Your task to perform on an android device: Go to Amazon Image 0: 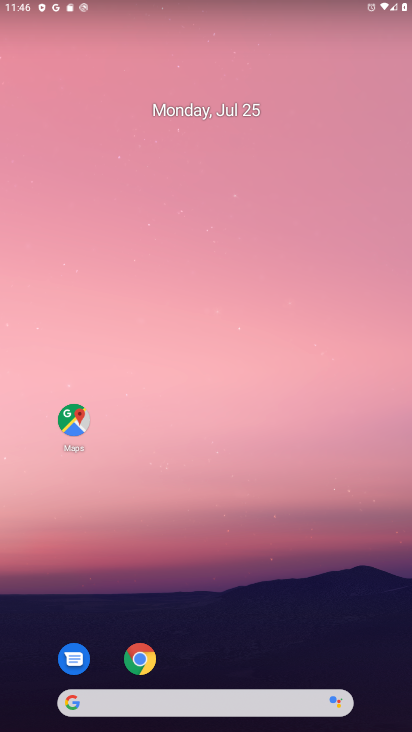
Step 0: click (138, 661)
Your task to perform on an android device: Go to Amazon Image 1: 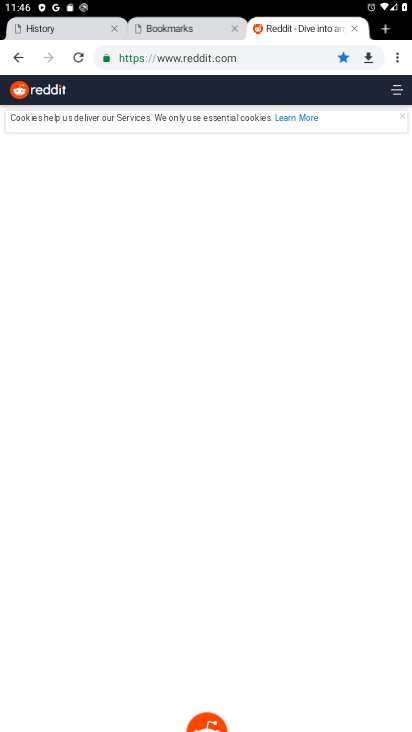
Step 1: click (396, 51)
Your task to perform on an android device: Go to Amazon Image 2: 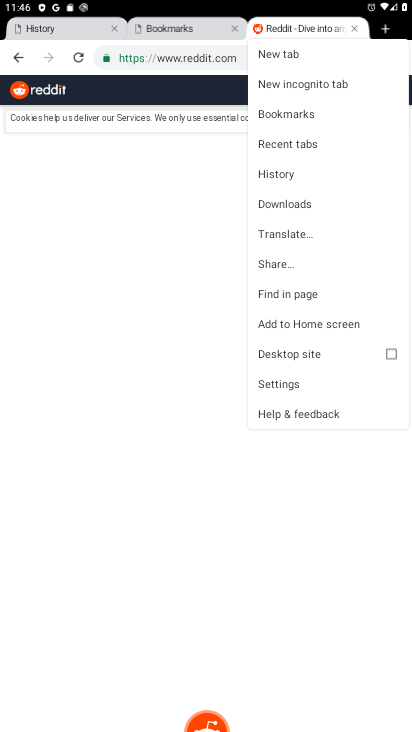
Step 2: click (274, 52)
Your task to perform on an android device: Go to Amazon Image 3: 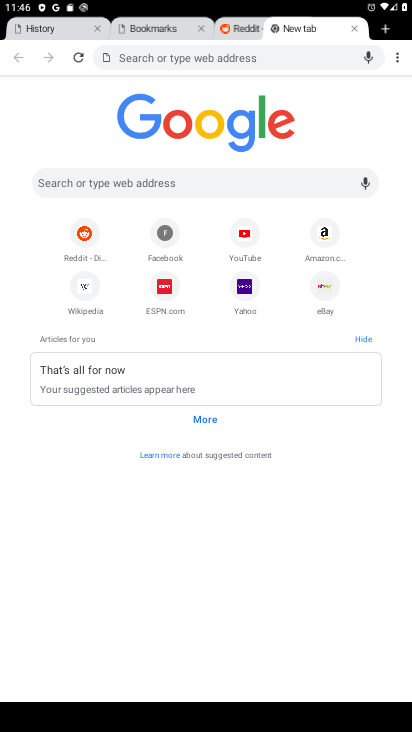
Step 3: click (320, 233)
Your task to perform on an android device: Go to Amazon Image 4: 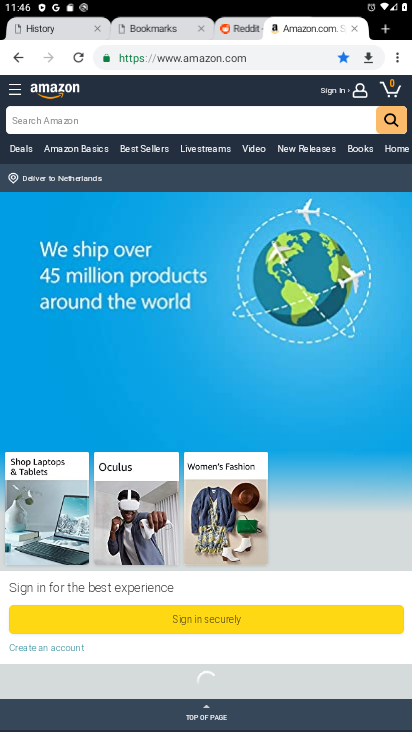
Step 4: task complete